Your task to perform on an android device: change keyboard looks Image 0: 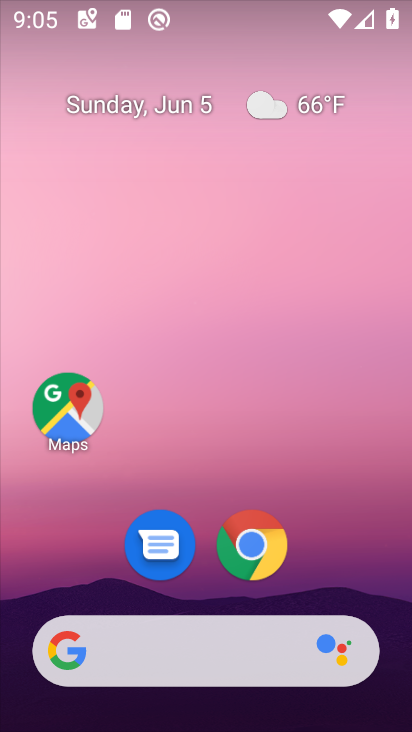
Step 0: drag from (376, 594) to (378, 182)
Your task to perform on an android device: change keyboard looks Image 1: 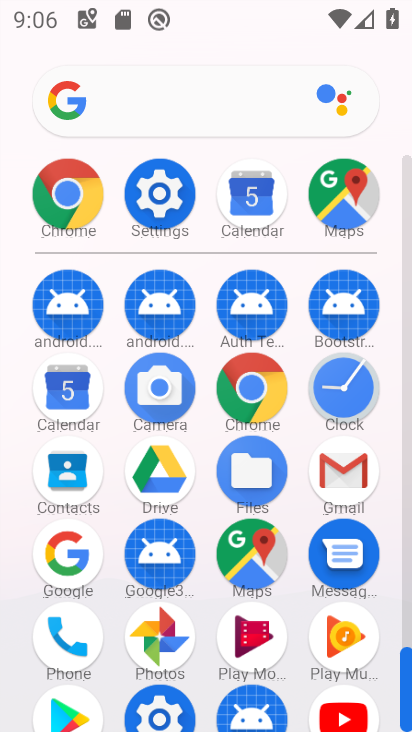
Step 1: click (168, 206)
Your task to perform on an android device: change keyboard looks Image 2: 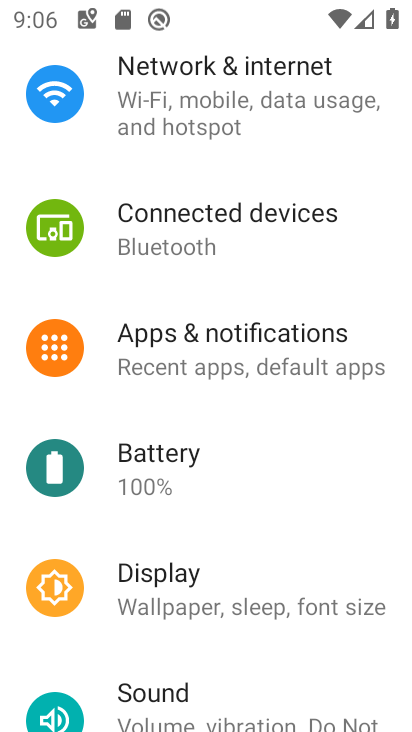
Step 2: drag from (365, 474) to (381, 309)
Your task to perform on an android device: change keyboard looks Image 3: 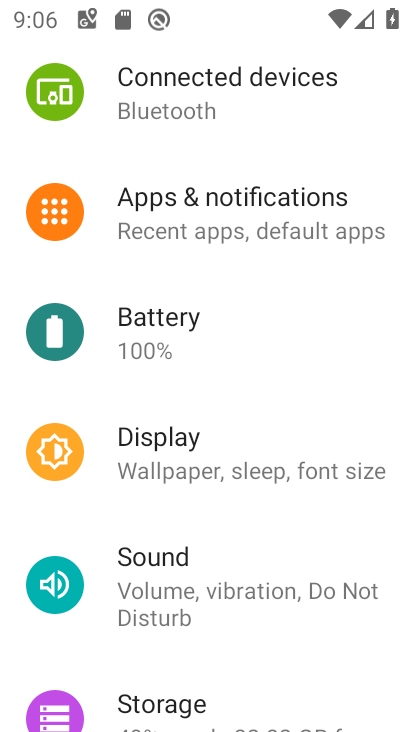
Step 3: drag from (328, 519) to (340, 368)
Your task to perform on an android device: change keyboard looks Image 4: 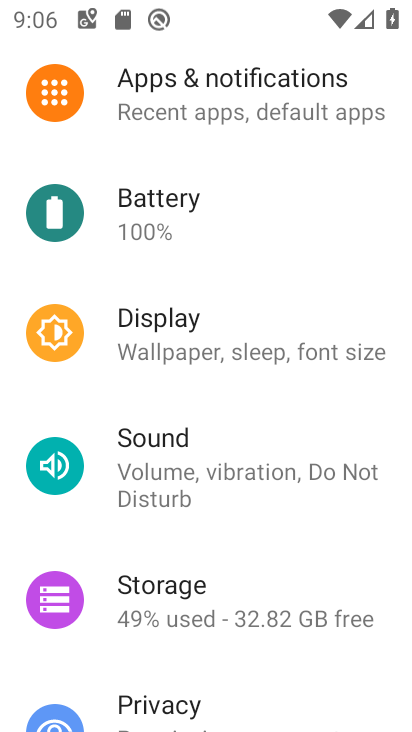
Step 4: drag from (319, 573) to (329, 404)
Your task to perform on an android device: change keyboard looks Image 5: 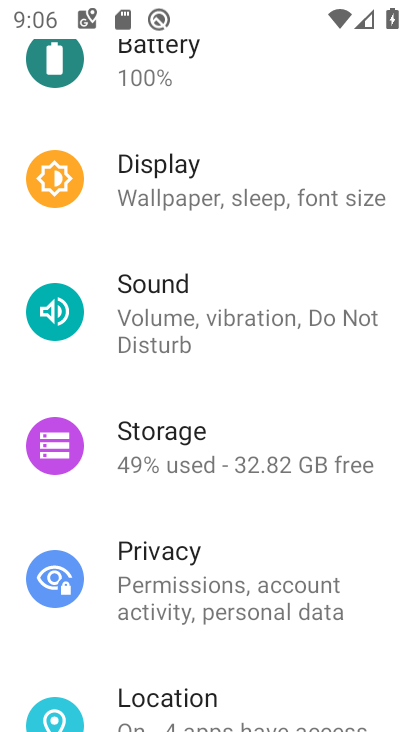
Step 5: drag from (347, 516) to (352, 381)
Your task to perform on an android device: change keyboard looks Image 6: 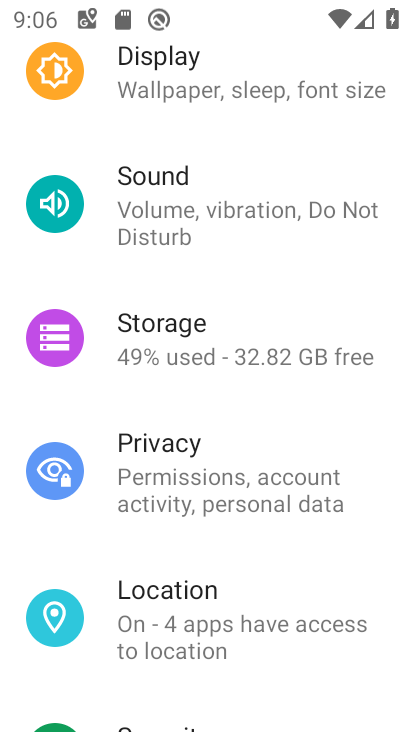
Step 6: drag from (342, 563) to (324, 347)
Your task to perform on an android device: change keyboard looks Image 7: 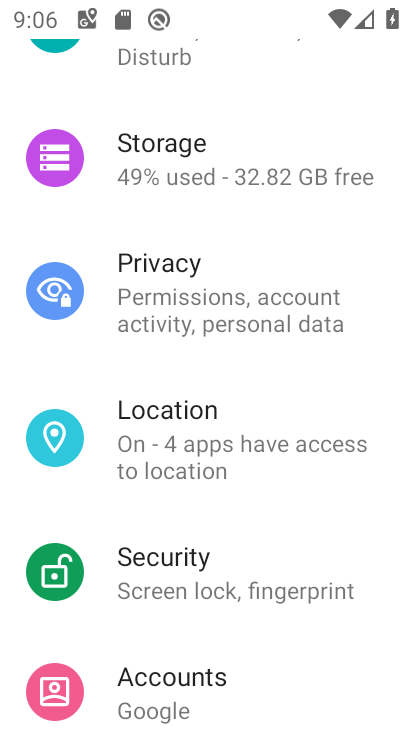
Step 7: drag from (359, 518) to (340, 386)
Your task to perform on an android device: change keyboard looks Image 8: 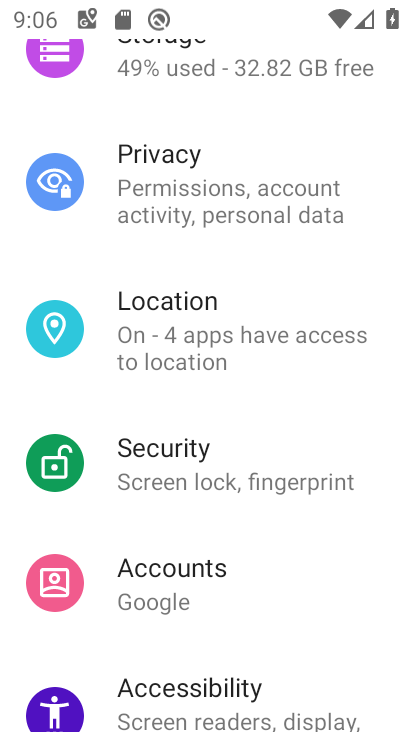
Step 8: drag from (363, 531) to (375, 418)
Your task to perform on an android device: change keyboard looks Image 9: 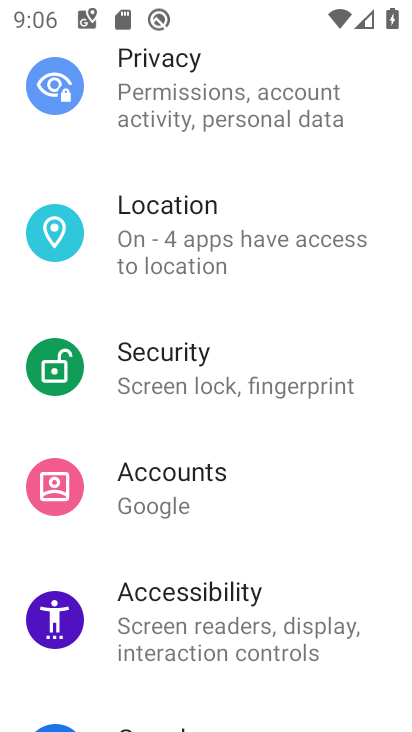
Step 9: drag from (350, 536) to (344, 343)
Your task to perform on an android device: change keyboard looks Image 10: 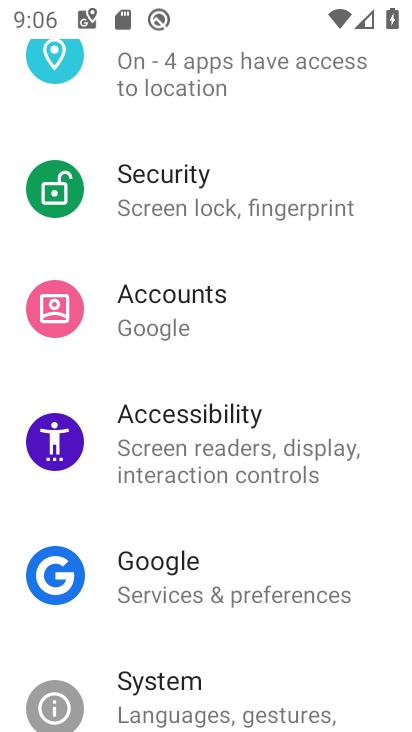
Step 10: drag from (352, 533) to (357, 277)
Your task to perform on an android device: change keyboard looks Image 11: 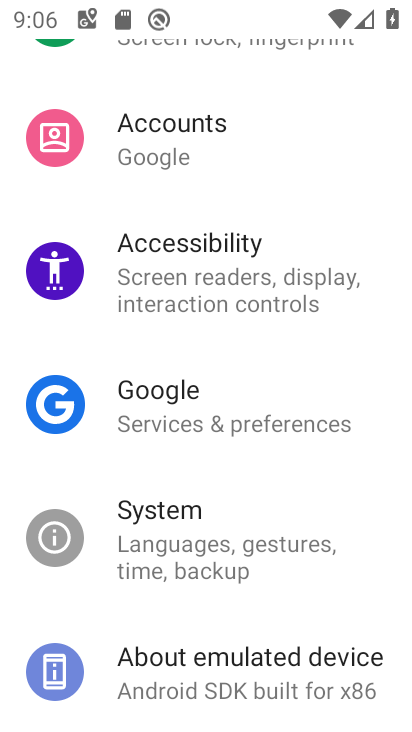
Step 11: drag from (348, 562) to (343, 204)
Your task to perform on an android device: change keyboard looks Image 12: 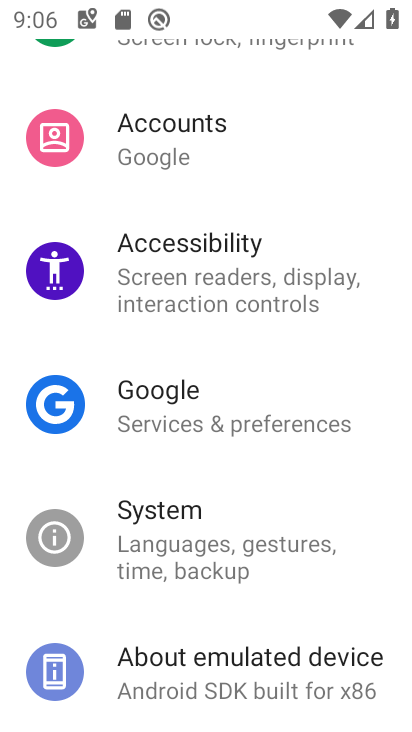
Step 12: click (218, 560)
Your task to perform on an android device: change keyboard looks Image 13: 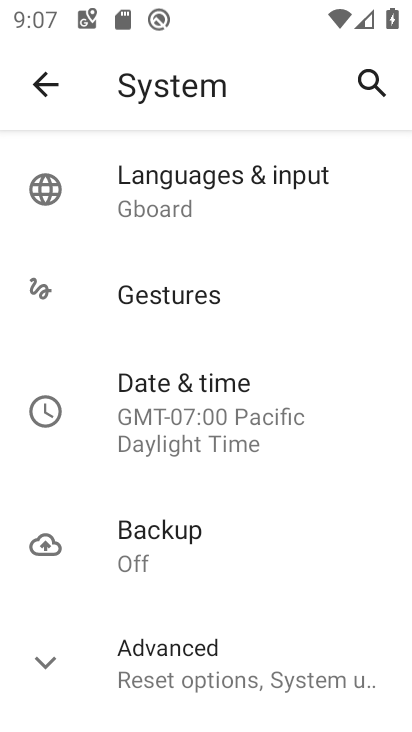
Step 13: click (250, 671)
Your task to perform on an android device: change keyboard looks Image 14: 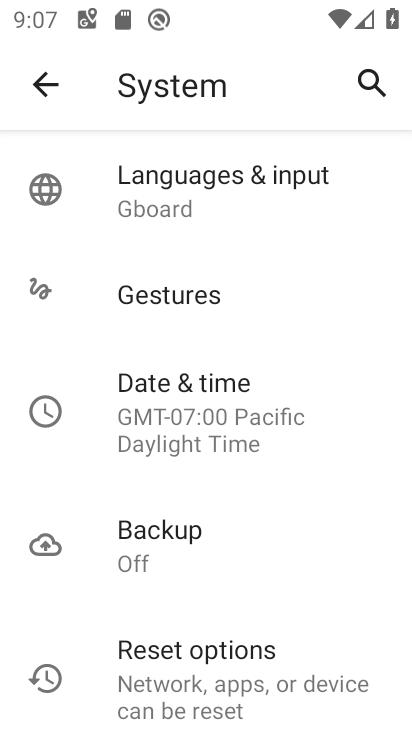
Step 14: drag from (285, 586) to (327, 316)
Your task to perform on an android device: change keyboard looks Image 15: 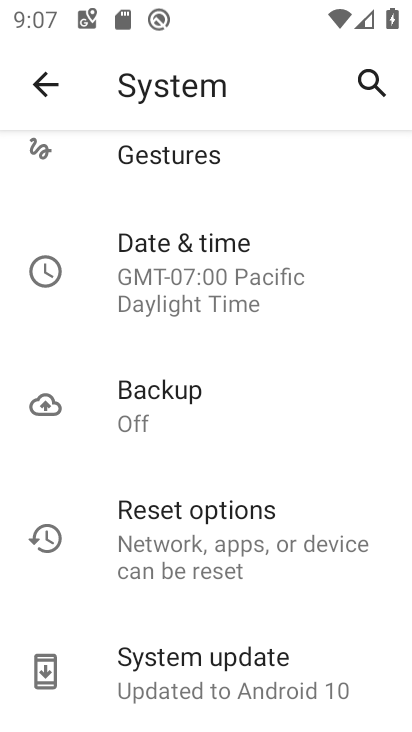
Step 15: drag from (332, 202) to (353, 443)
Your task to perform on an android device: change keyboard looks Image 16: 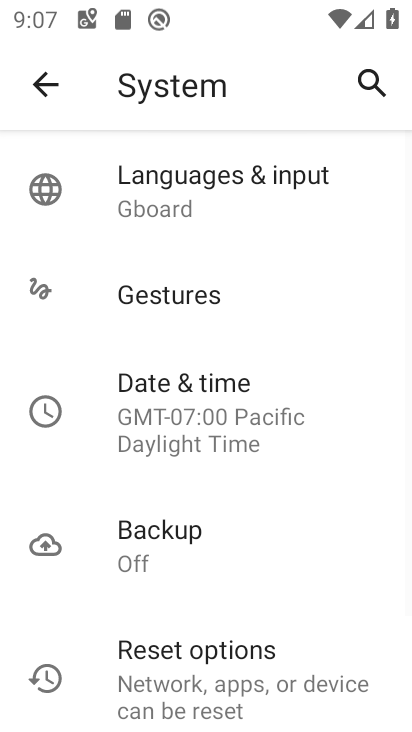
Step 16: click (226, 186)
Your task to perform on an android device: change keyboard looks Image 17: 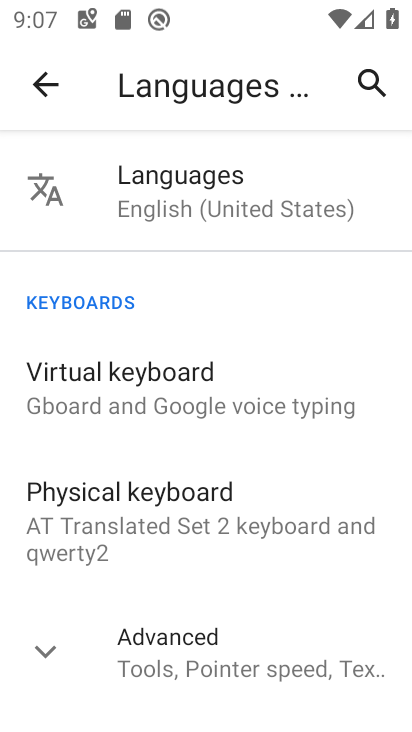
Step 17: click (169, 402)
Your task to perform on an android device: change keyboard looks Image 18: 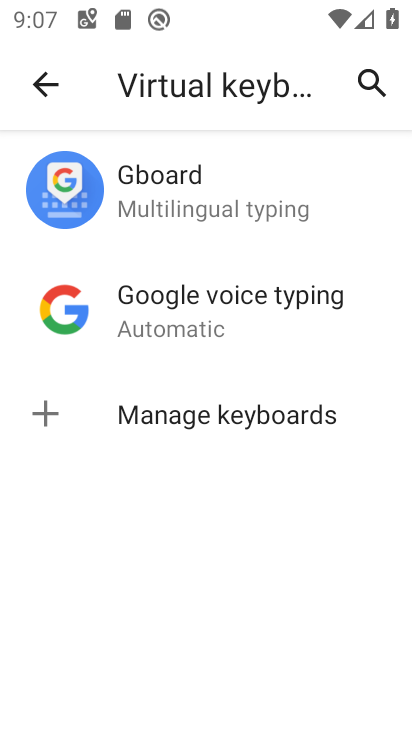
Step 18: click (242, 238)
Your task to perform on an android device: change keyboard looks Image 19: 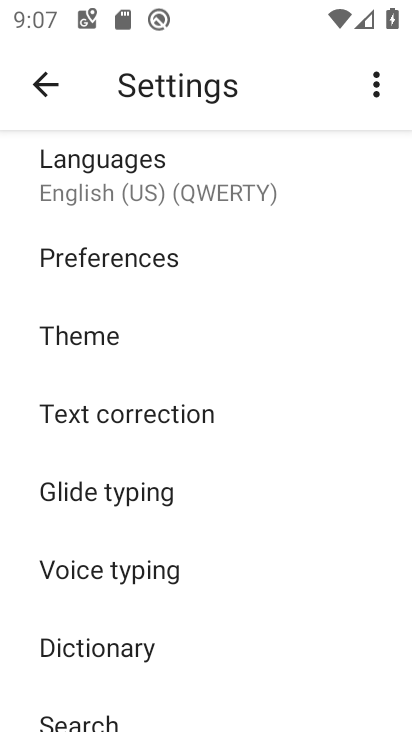
Step 19: click (116, 343)
Your task to perform on an android device: change keyboard looks Image 20: 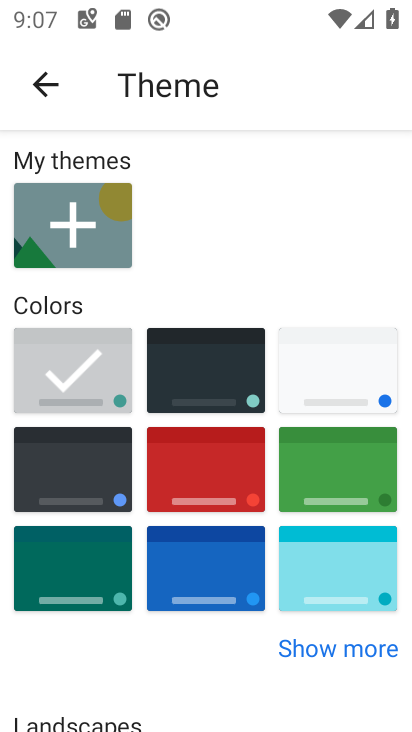
Step 20: click (217, 481)
Your task to perform on an android device: change keyboard looks Image 21: 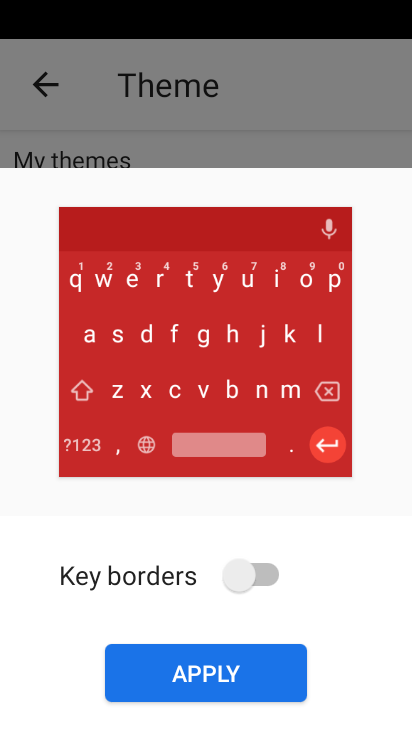
Step 21: click (257, 658)
Your task to perform on an android device: change keyboard looks Image 22: 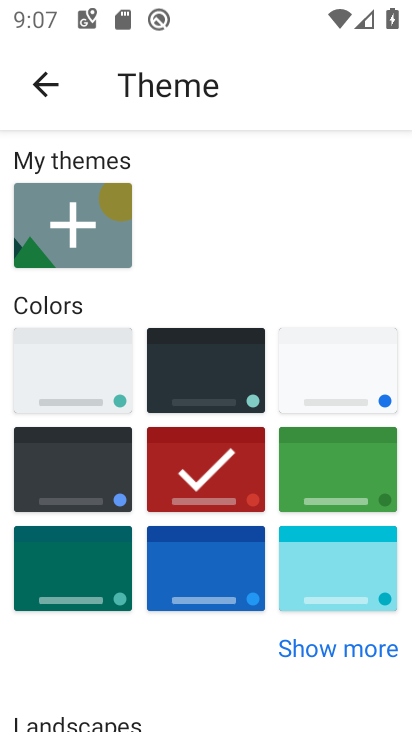
Step 22: task complete